Your task to perform on an android device: What is the recent news? Image 0: 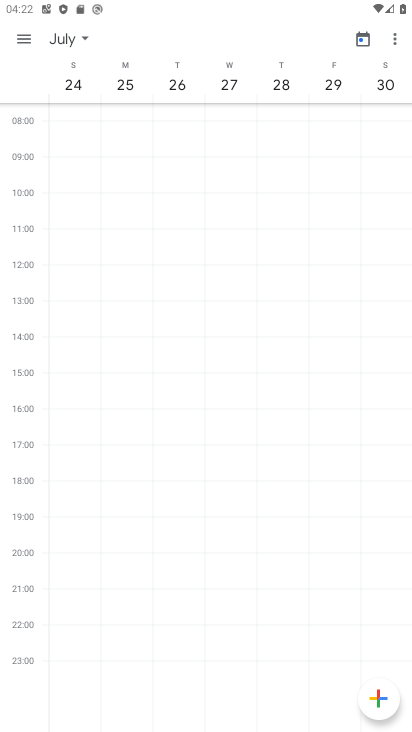
Step 0: press home button
Your task to perform on an android device: What is the recent news? Image 1: 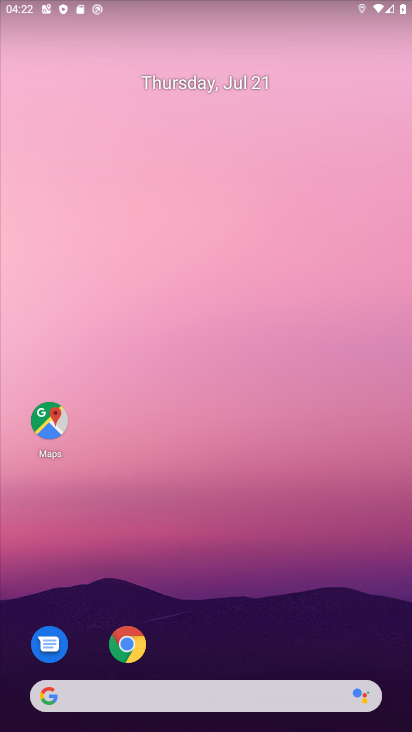
Step 1: click (126, 693)
Your task to perform on an android device: What is the recent news? Image 2: 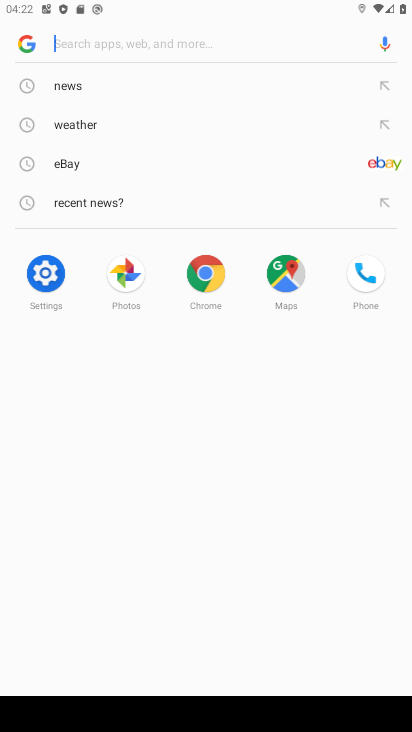
Step 2: click (87, 207)
Your task to perform on an android device: What is the recent news? Image 3: 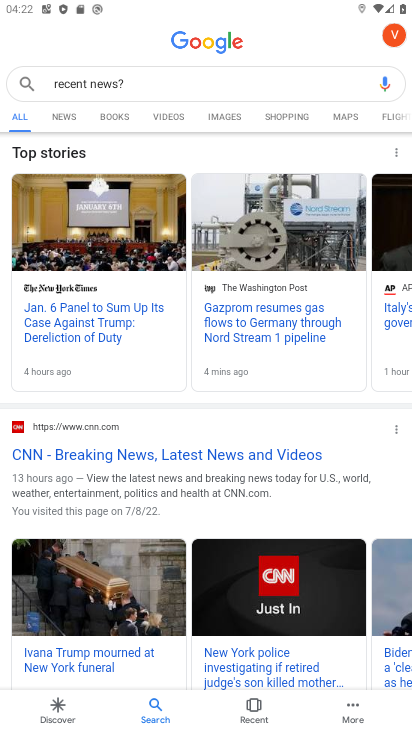
Step 3: click (255, 243)
Your task to perform on an android device: What is the recent news? Image 4: 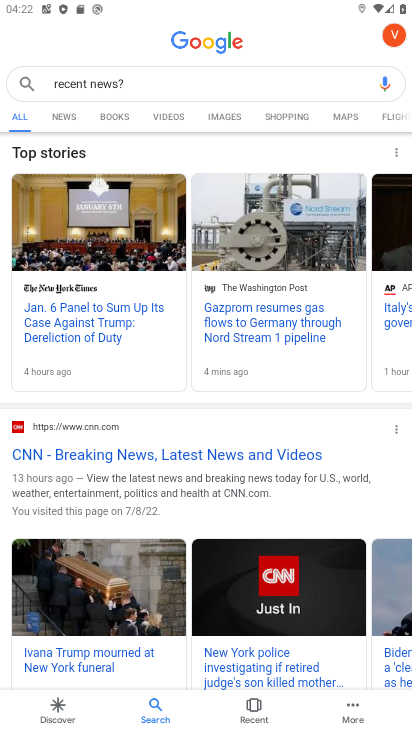
Step 4: click (247, 316)
Your task to perform on an android device: What is the recent news? Image 5: 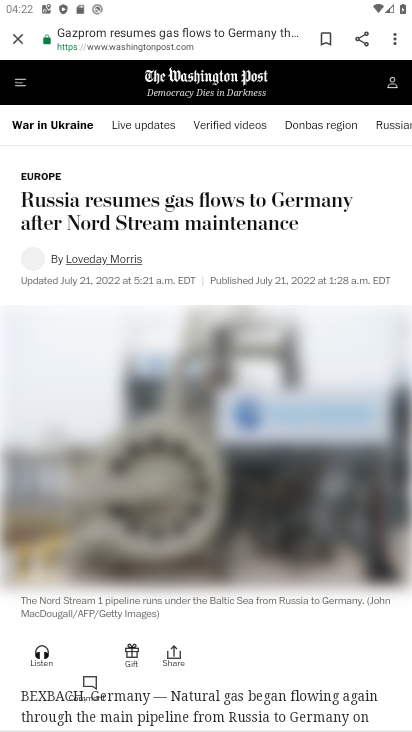
Step 5: task complete